Your task to perform on an android device: Open settings on Google Maps Image 0: 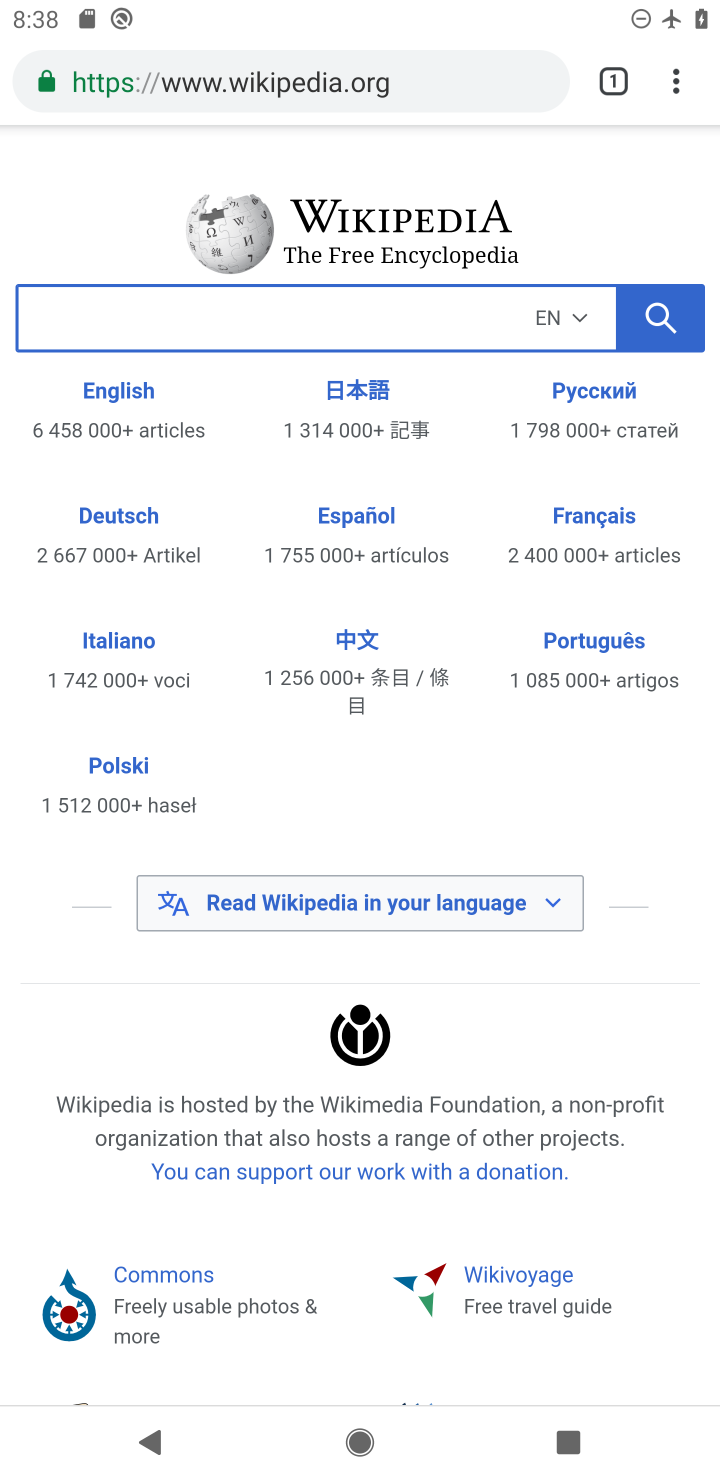
Step 0: press home button
Your task to perform on an android device: Open settings on Google Maps Image 1: 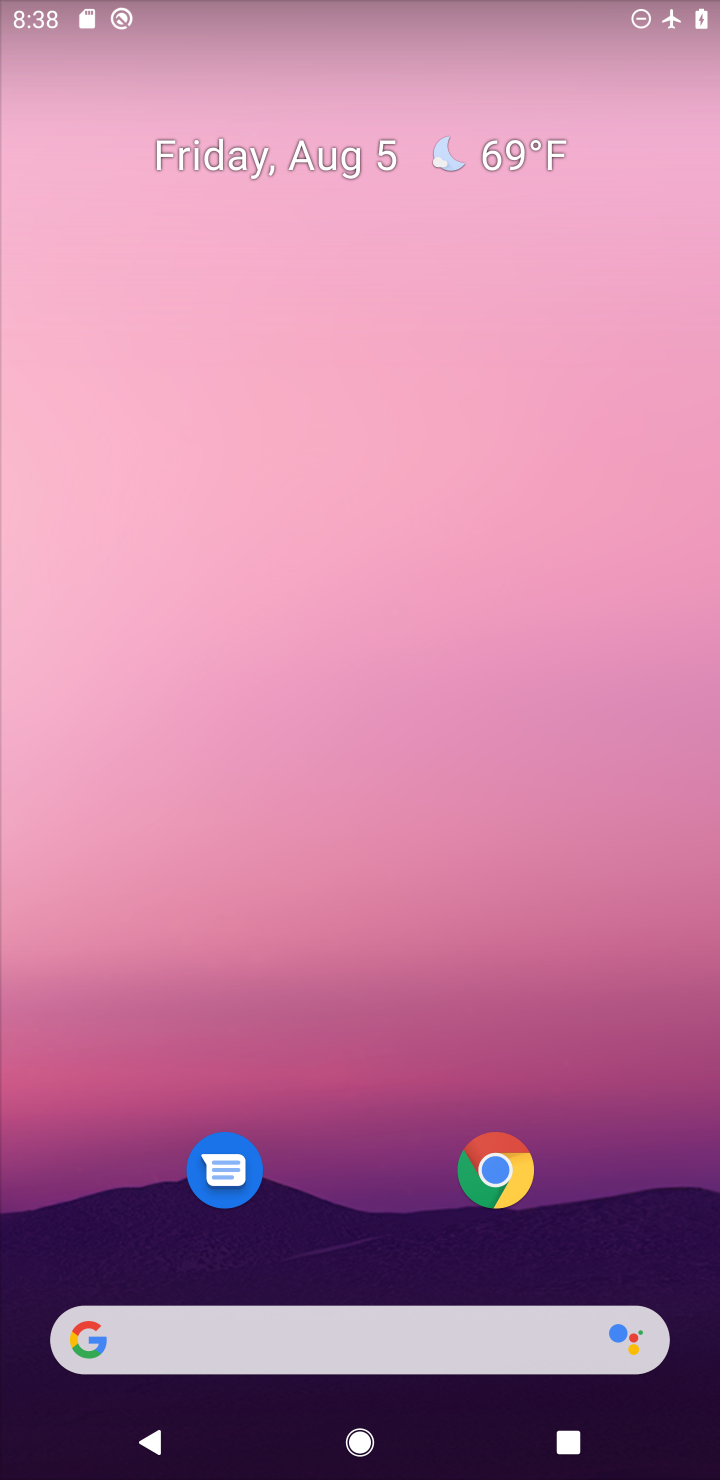
Step 1: drag from (616, 1106) to (644, 162)
Your task to perform on an android device: Open settings on Google Maps Image 2: 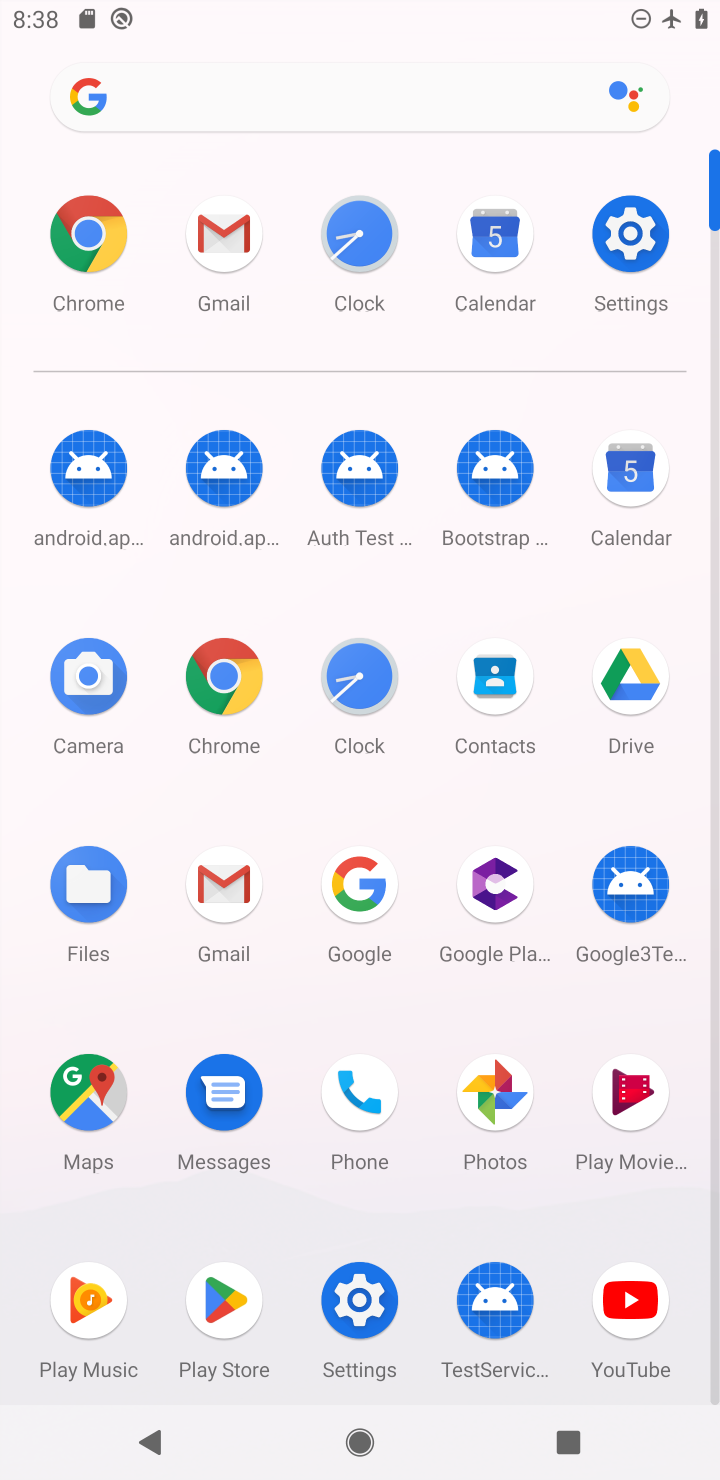
Step 2: click (80, 1088)
Your task to perform on an android device: Open settings on Google Maps Image 3: 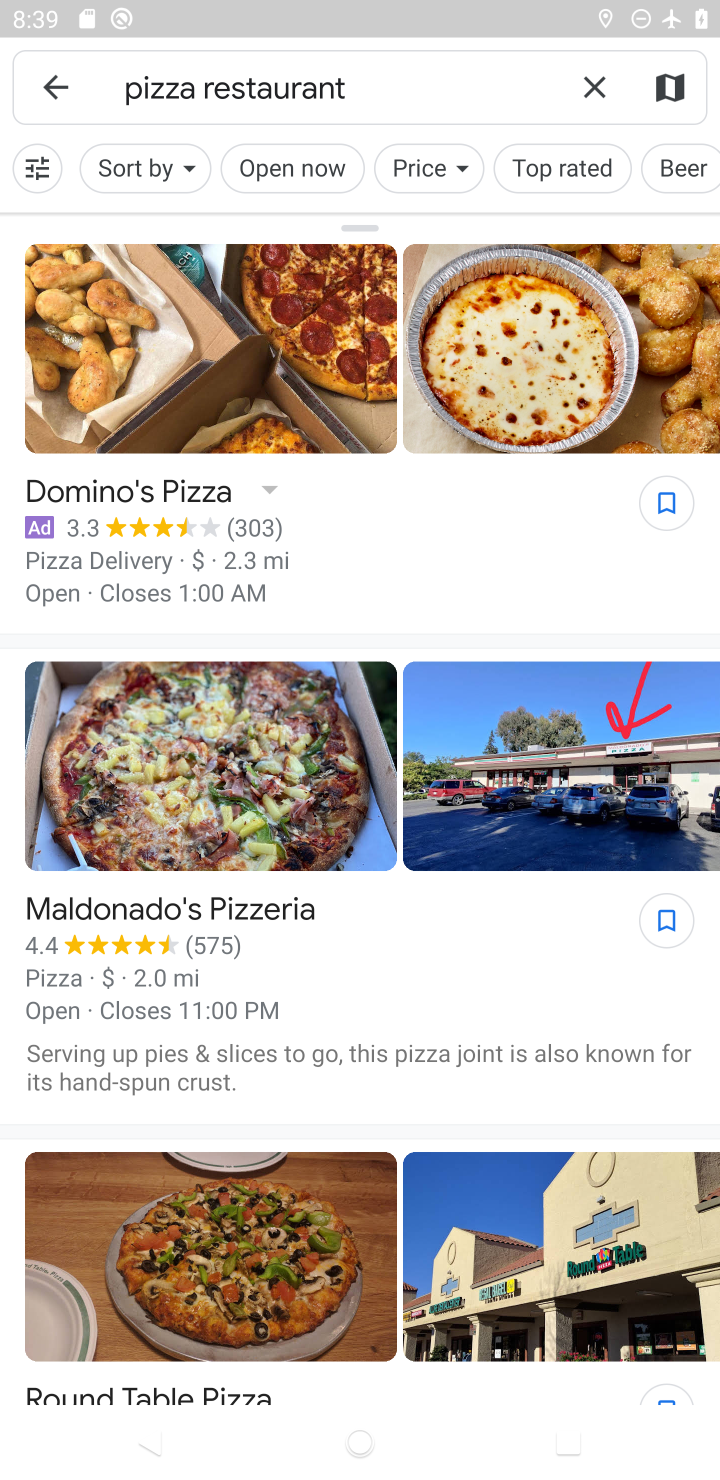
Step 3: click (591, 82)
Your task to perform on an android device: Open settings on Google Maps Image 4: 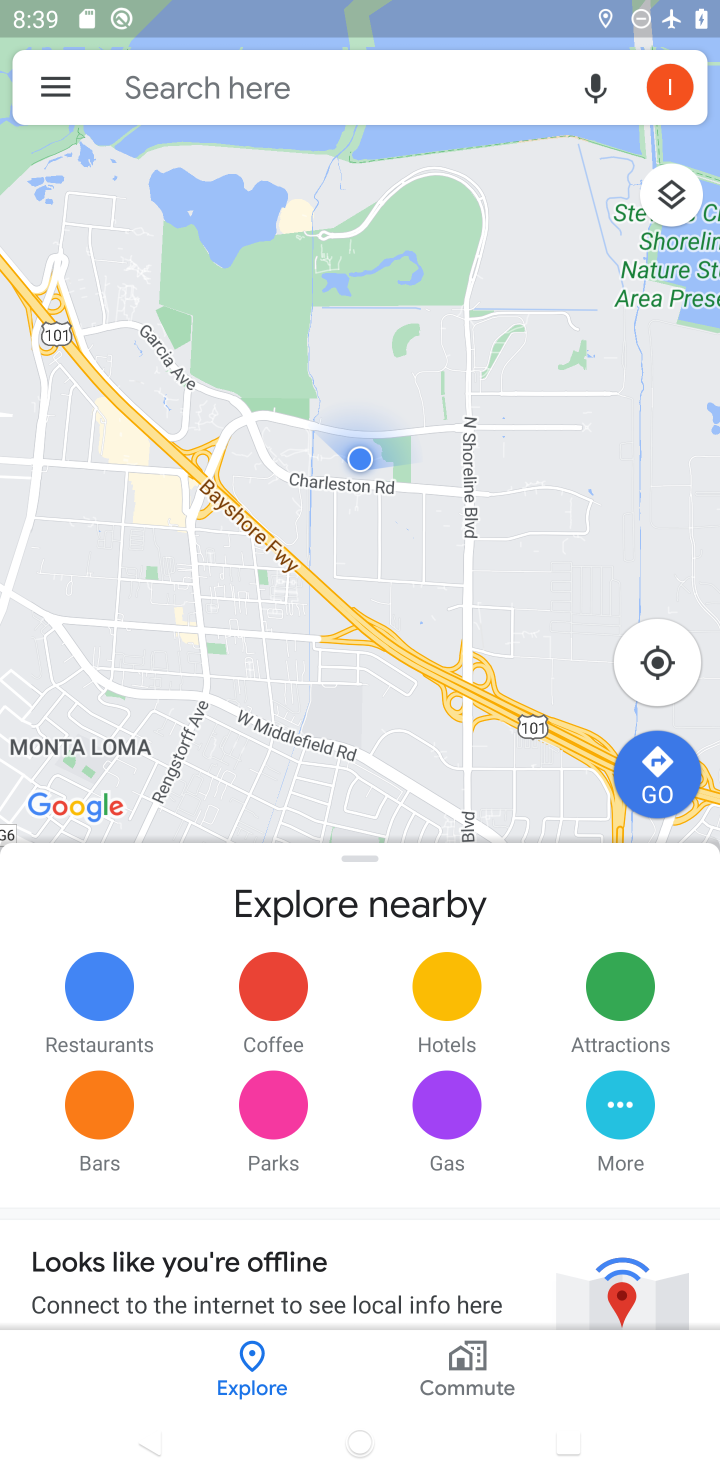
Step 4: click (60, 88)
Your task to perform on an android device: Open settings on Google Maps Image 5: 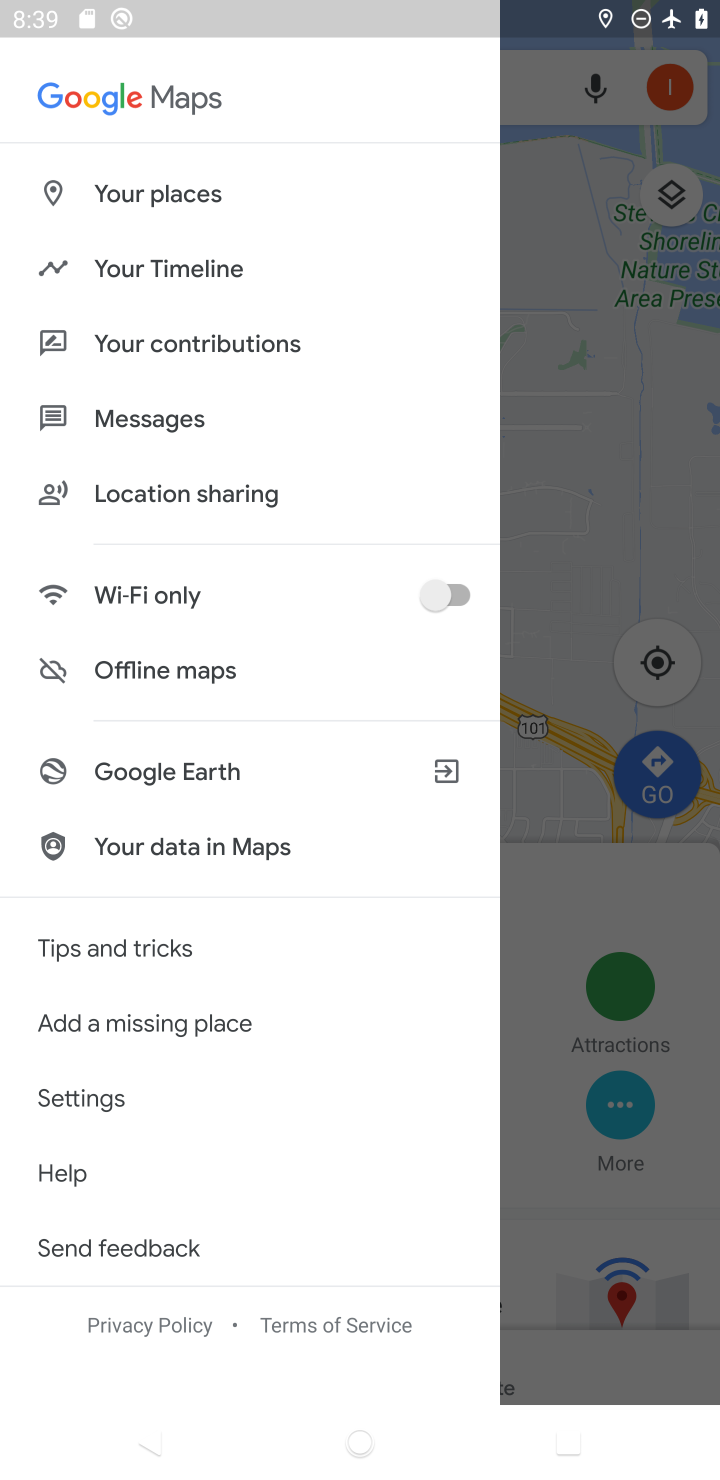
Step 5: click (94, 1091)
Your task to perform on an android device: Open settings on Google Maps Image 6: 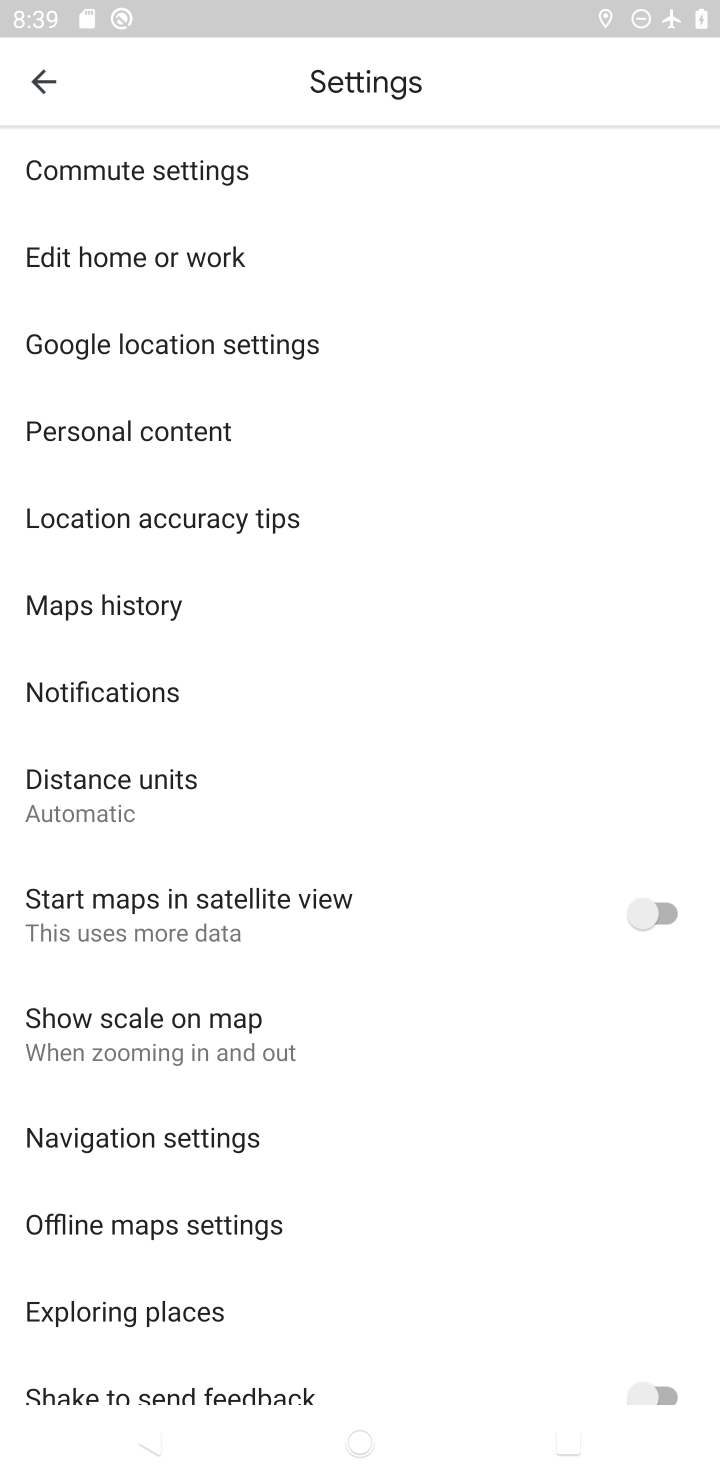
Step 6: task complete